Your task to perform on an android device: turn notification dots on Image 0: 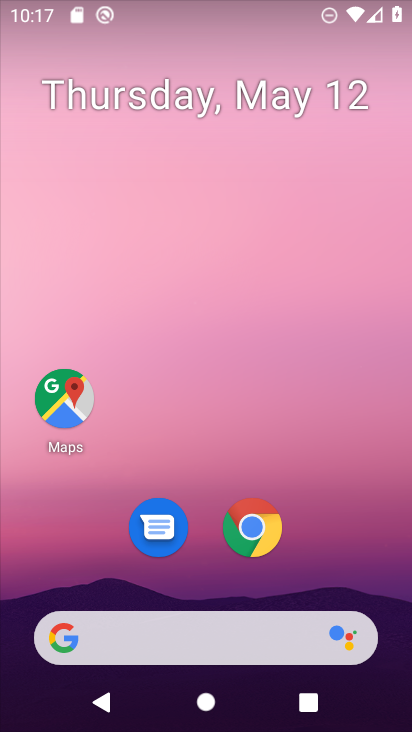
Step 0: drag from (334, 561) to (319, 146)
Your task to perform on an android device: turn notification dots on Image 1: 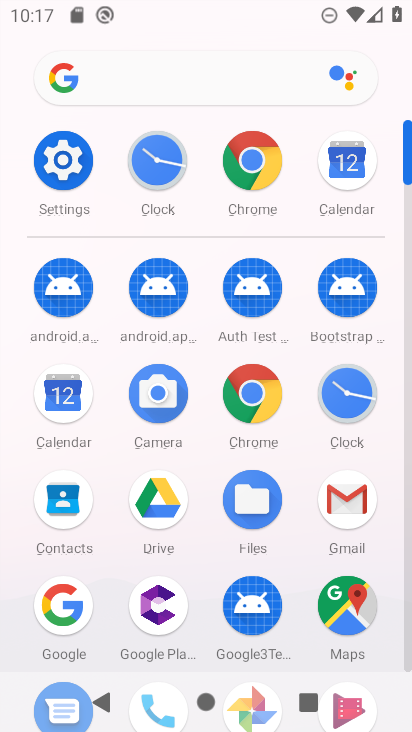
Step 1: click (80, 176)
Your task to perform on an android device: turn notification dots on Image 2: 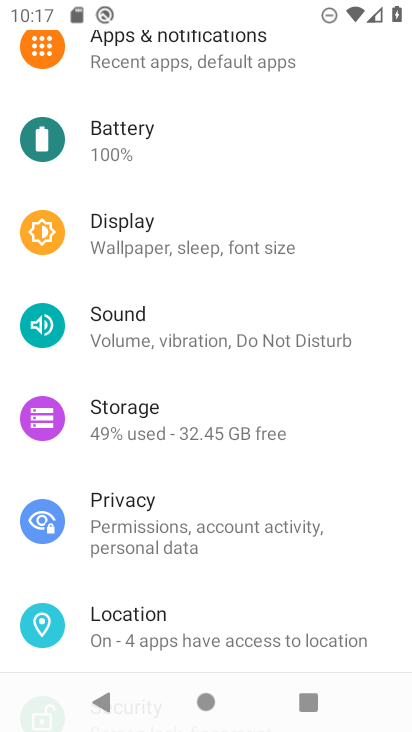
Step 2: drag from (185, 276) to (208, 513)
Your task to perform on an android device: turn notification dots on Image 3: 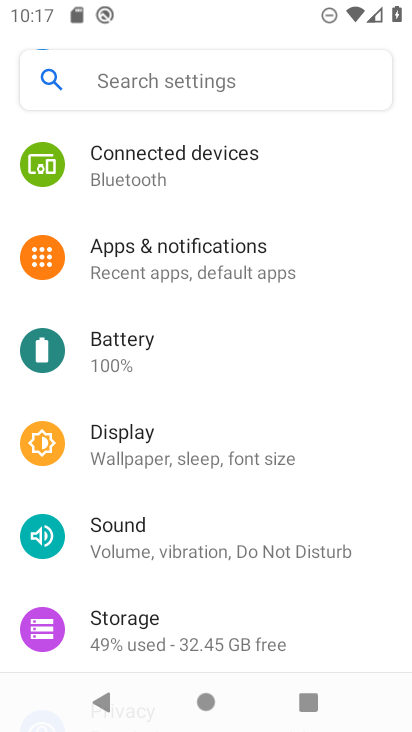
Step 3: click (221, 235)
Your task to perform on an android device: turn notification dots on Image 4: 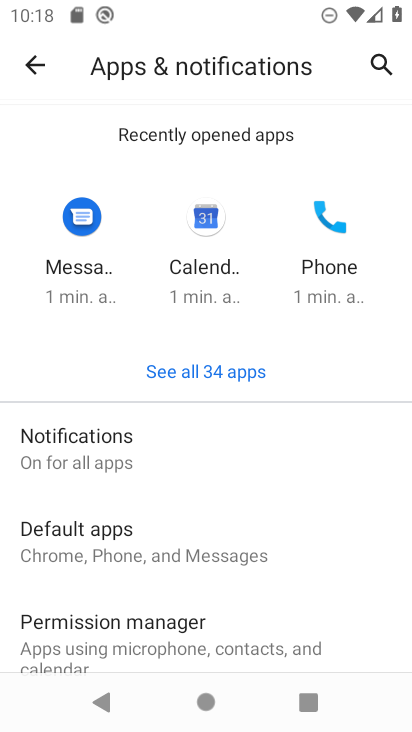
Step 4: click (181, 465)
Your task to perform on an android device: turn notification dots on Image 5: 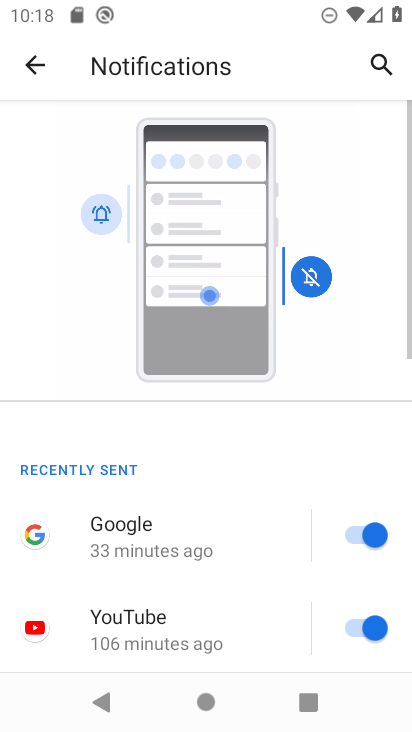
Step 5: drag from (233, 620) to (263, 171)
Your task to perform on an android device: turn notification dots on Image 6: 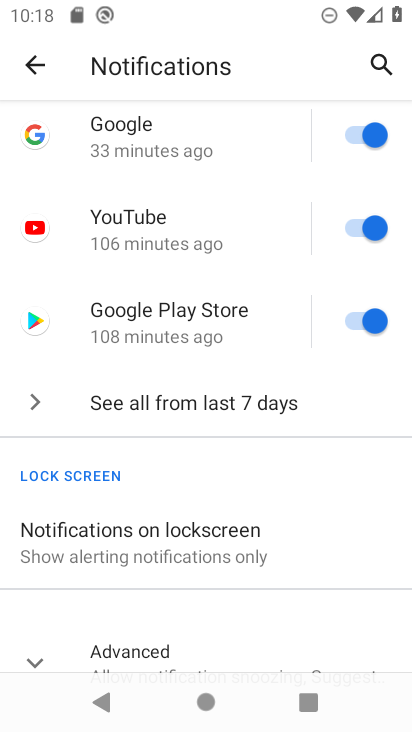
Step 6: drag from (197, 551) to (199, 355)
Your task to perform on an android device: turn notification dots on Image 7: 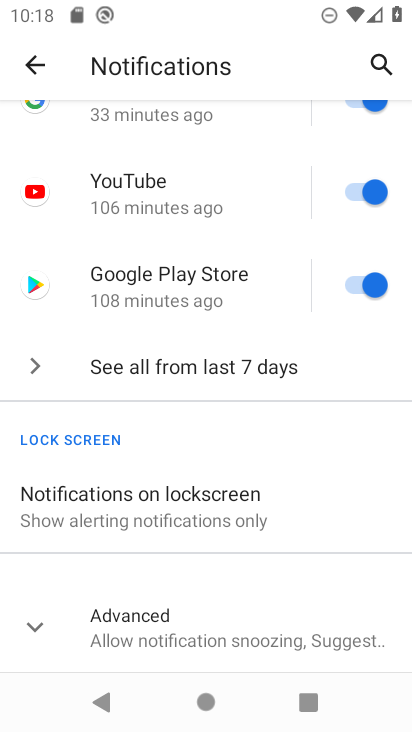
Step 7: click (189, 577)
Your task to perform on an android device: turn notification dots on Image 8: 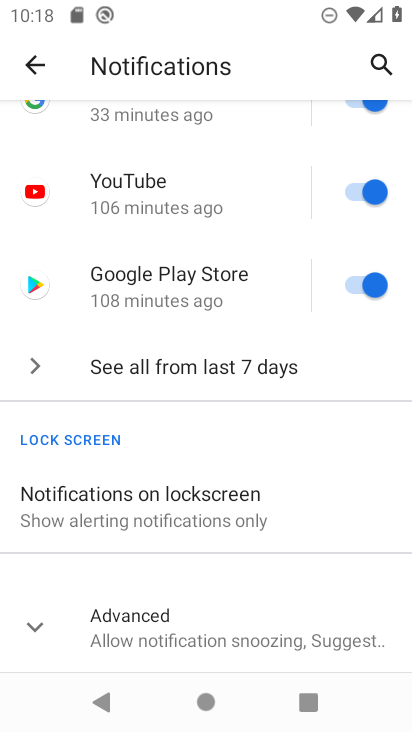
Step 8: drag from (258, 562) to (270, 241)
Your task to perform on an android device: turn notification dots on Image 9: 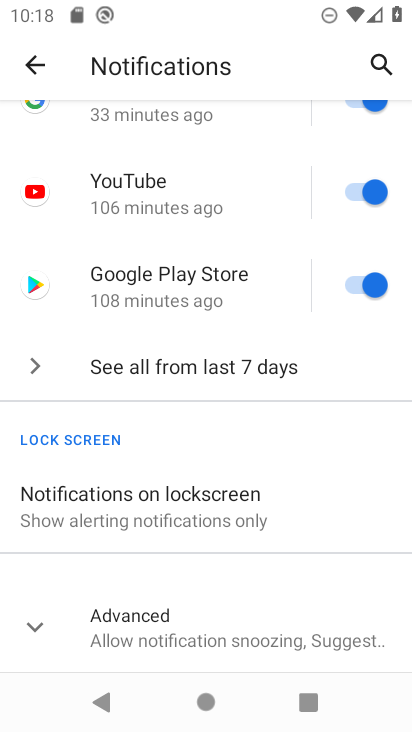
Step 9: click (201, 605)
Your task to perform on an android device: turn notification dots on Image 10: 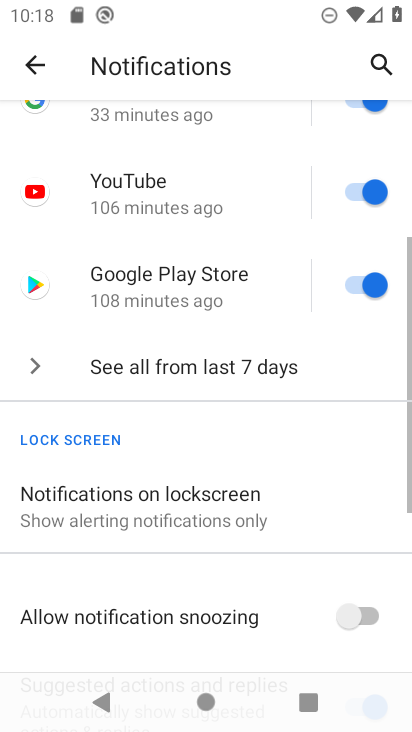
Step 10: drag from (236, 567) to (261, 203)
Your task to perform on an android device: turn notification dots on Image 11: 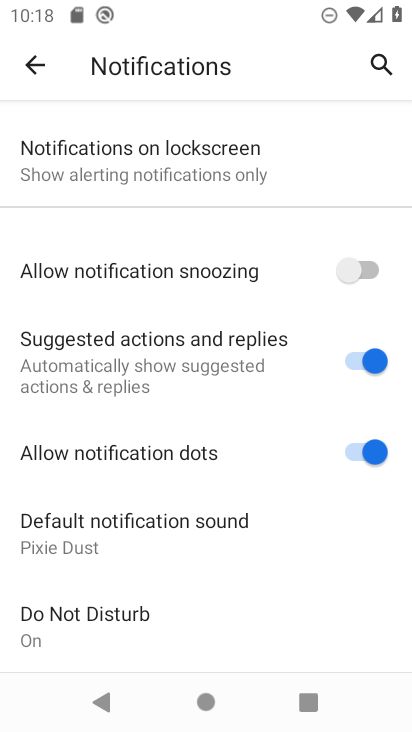
Step 11: click (363, 448)
Your task to perform on an android device: turn notification dots on Image 12: 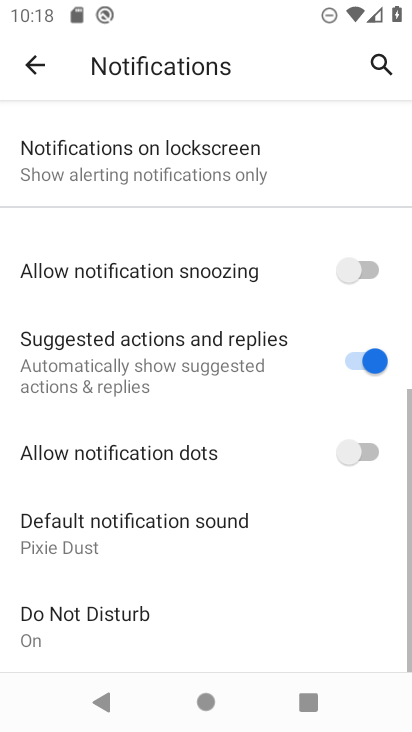
Step 12: click (361, 436)
Your task to perform on an android device: turn notification dots on Image 13: 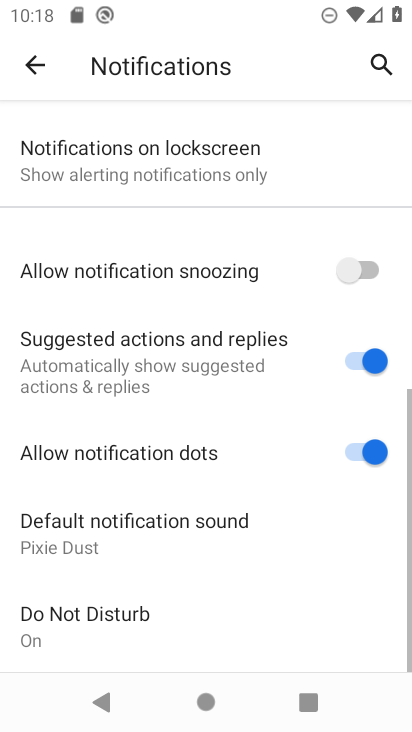
Step 13: task complete